Your task to perform on an android device: Open calendar and show me the second week of next month Image 0: 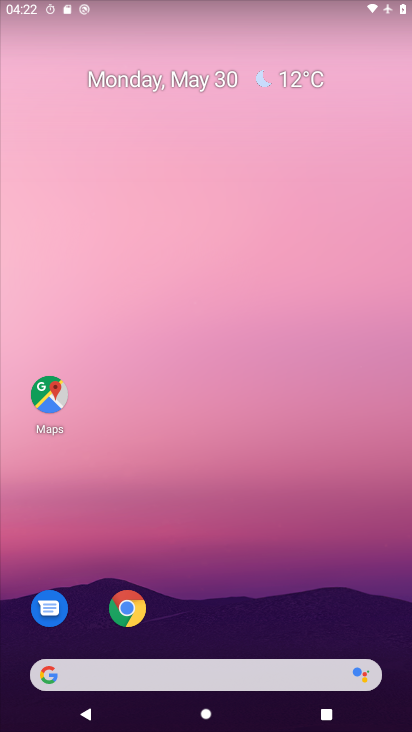
Step 0: drag from (317, 589) to (104, 1)
Your task to perform on an android device: Open calendar and show me the second week of next month Image 1: 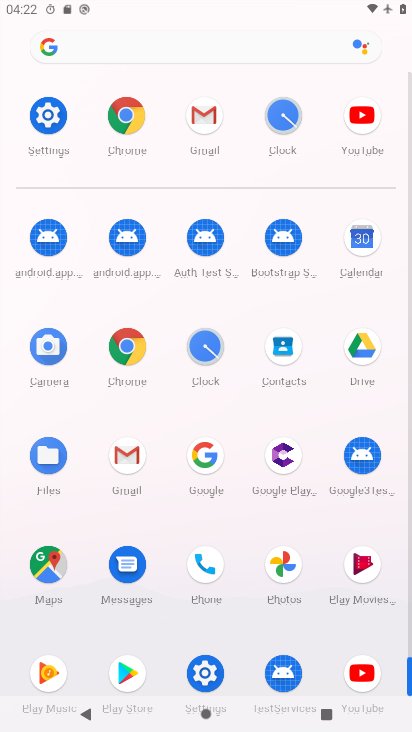
Step 1: click (351, 240)
Your task to perform on an android device: Open calendar and show me the second week of next month Image 2: 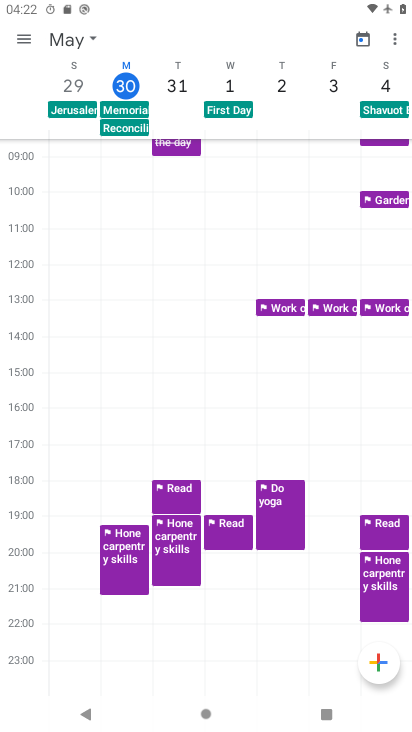
Step 2: click (88, 35)
Your task to perform on an android device: Open calendar and show me the second week of next month Image 3: 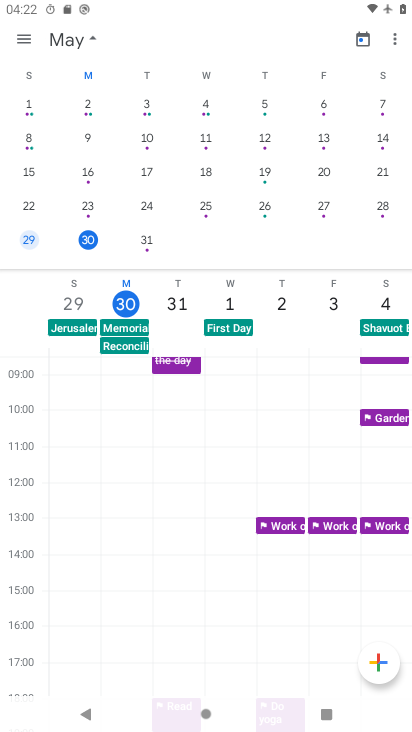
Step 3: drag from (354, 161) to (5, 273)
Your task to perform on an android device: Open calendar and show me the second week of next month Image 4: 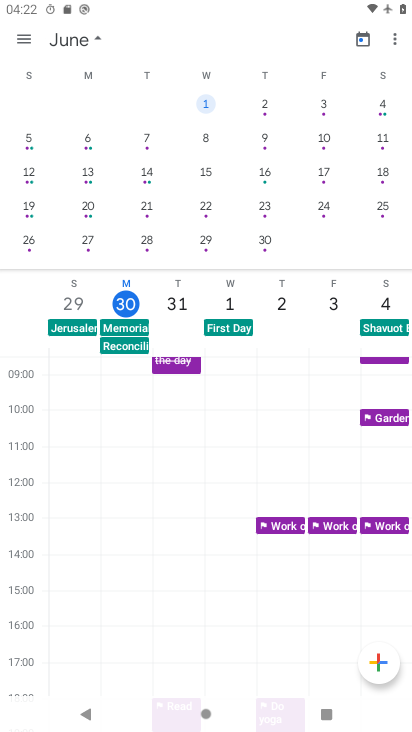
Step 4: click (31, 165)
Your task to perform on an android device: Open calendar and show me the second week of next month Image 5: 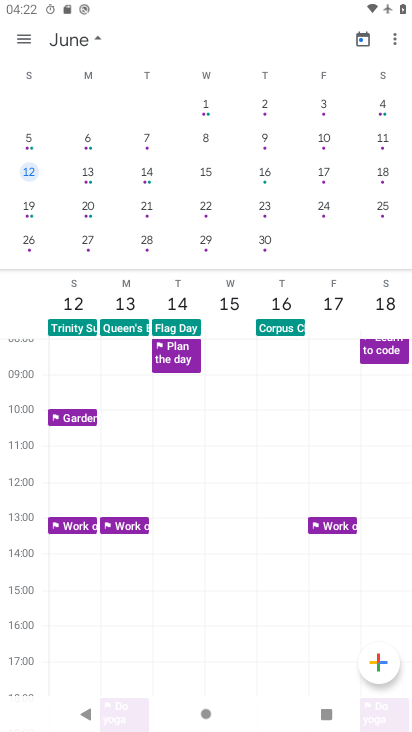
Step 5: click (22, 137)
Your task to perform on an android device: Open calendar and show me the second week of next month Image 6: 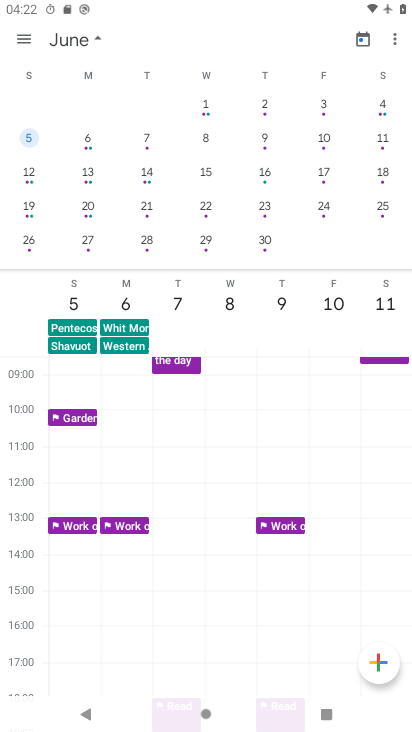
Step 6: task complete